Your task to perform on an android device: Open my contact list Image 0: 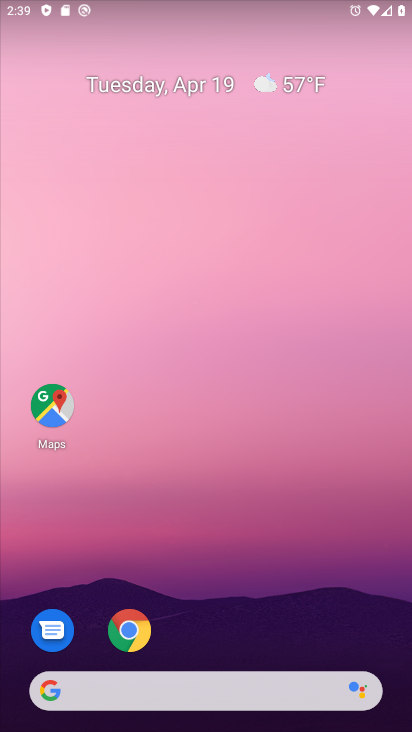
Step 0: drag from (215, 410) to (246, 12)
Your task to perform on an android device: Open my contact list Image 1: 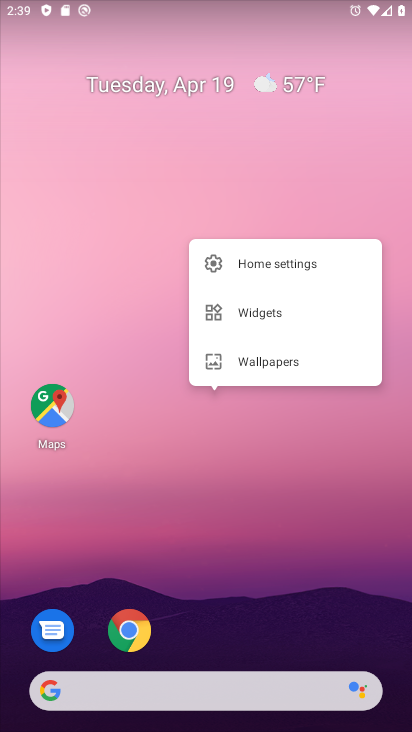
Step 1: click (221, 449)
Your task to perform on an android device: Open my contact list Image 2: 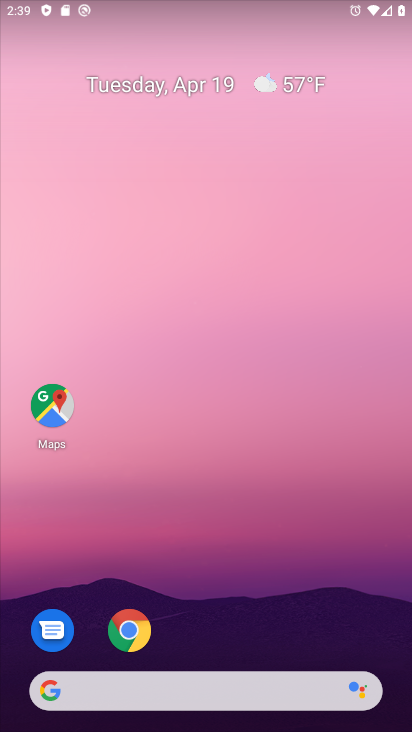
Step 2: drag from (229, 650) to (237, 2)
Your task to perform on an android device: Open my contact list Image 3: 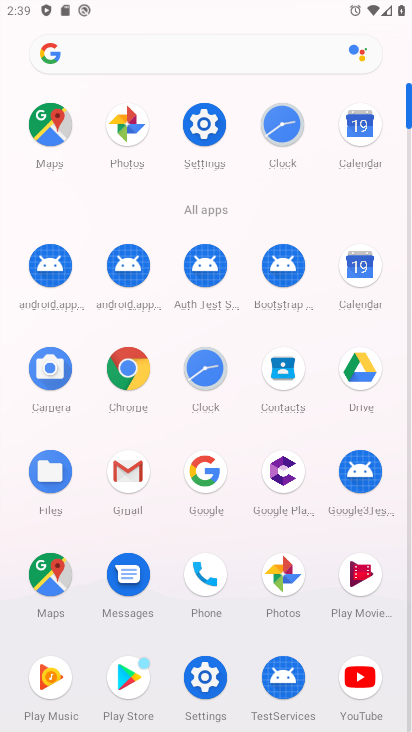
Step 3: click (287, 377)
Your task to perform on an android device: Open my contact list Image 4: 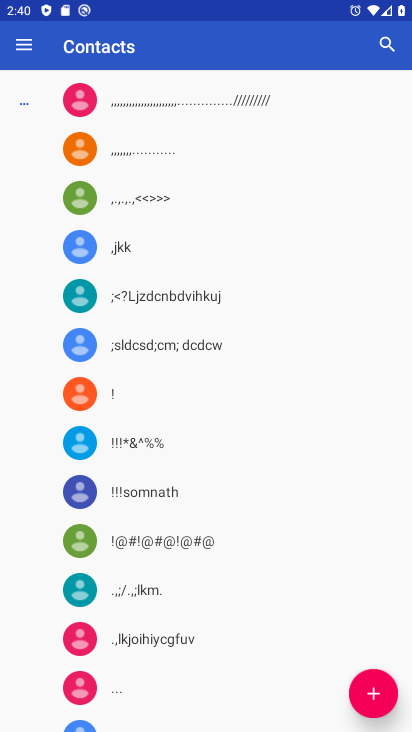
Step 4: task complete